Your task to perform on an android device: turn off sleep mode Image 0: 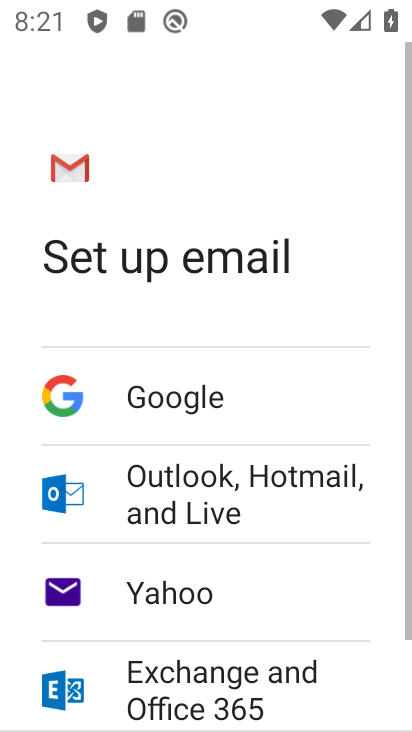
Step 0: task impossible